Your task to perform on an android device: Go to Amazon Image 0: 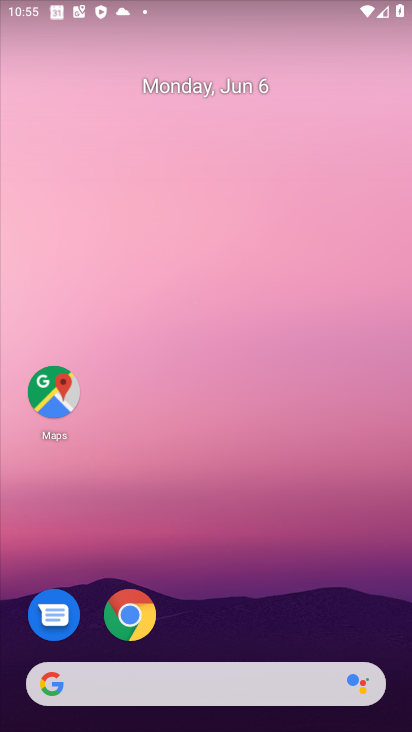
Step 0: click (144, 672)
Your task to perform on an android device: Go to Amazon Image 1: 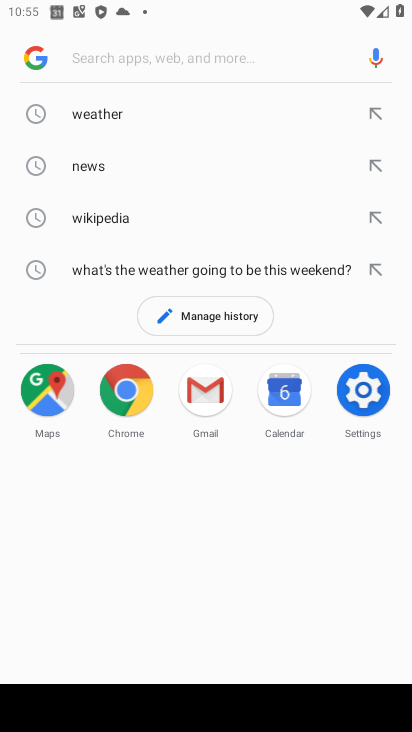
Step 1: type "amazon"
Your task to perform on an android device: Go to Amazon Image 2: 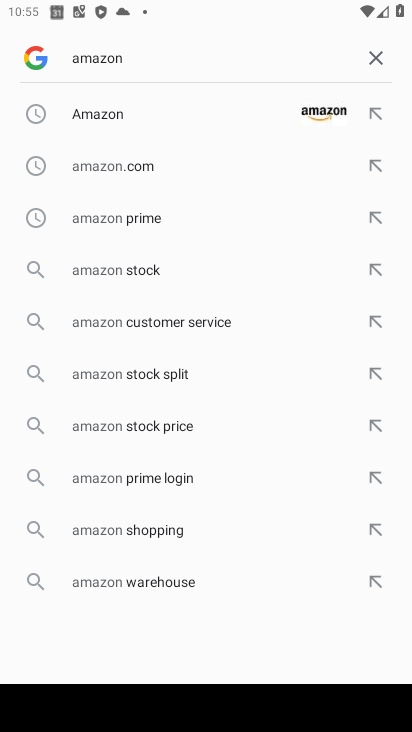
Step 2: click (96, 106)
Your task to perform on an android device: Go to Amazon Image 3: 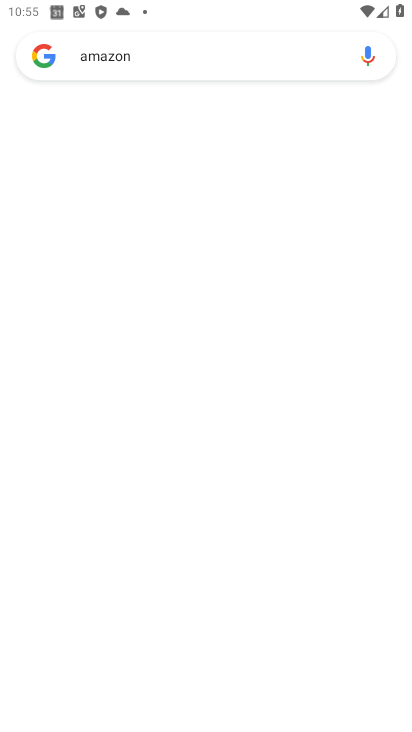
Step 3: task complete